Your task to perform on an android device: Open location settings Image 0: 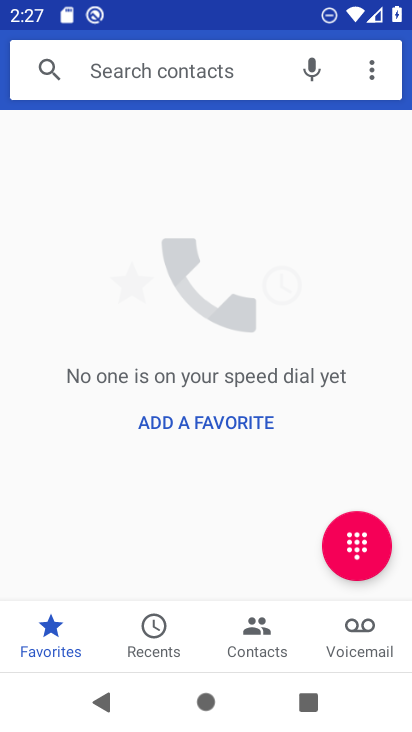
Step 0: drag from (218, 566) to (202, 160)
Your task to perform on an android device: Open location settings Image 1: 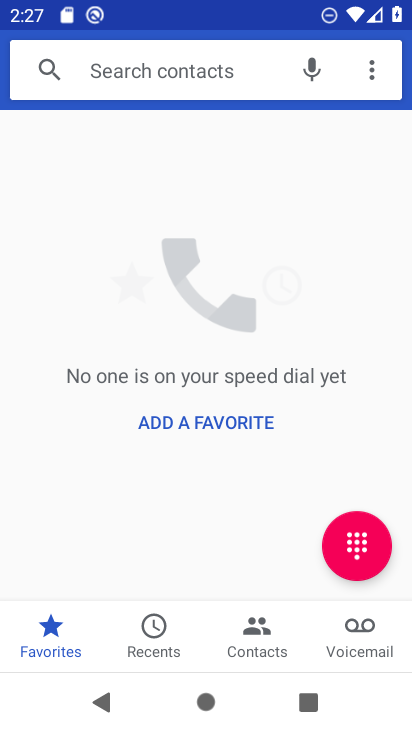
Step 1: press home button
Your task to perform on an android device: Open location settings Image 2: 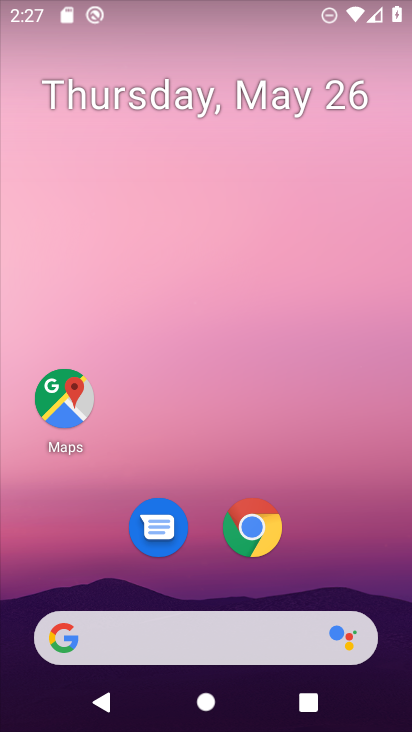
Step 2: drag from (194, 581) to (220, 133)
Your task to perform on an android device: Open location settings Image 3: 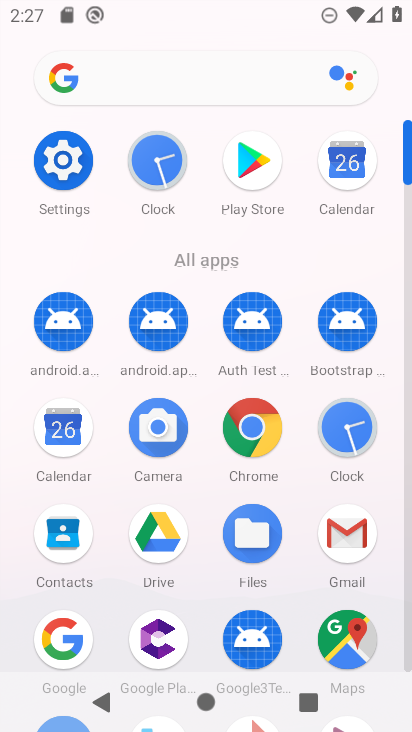
Step 3: click (61, 148)
Your task to perform on an android device: Open location settings Image 4: 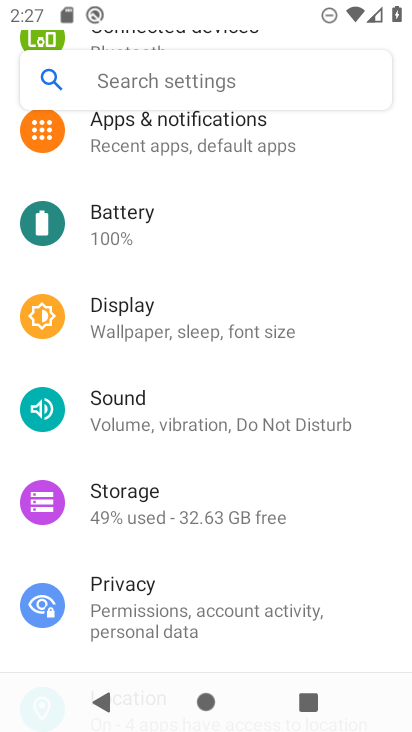
Step 4: drag from (214, 256) to (317, 171)
Your task to perform on an android device: Open location settings Image 5: 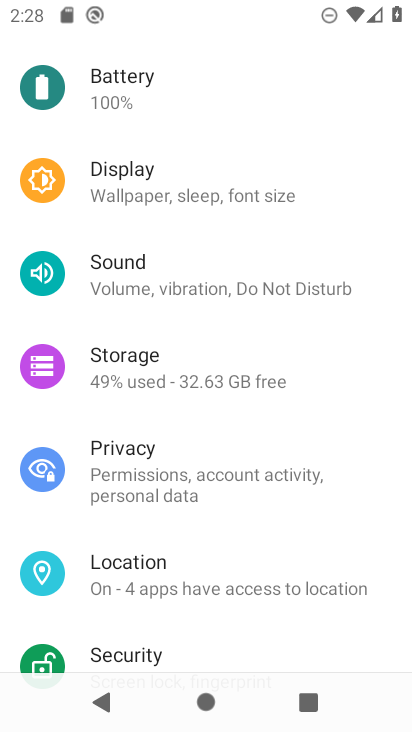
Step 5: click (130, 581)
Your task to perform on an android device: Open location settings Image 6: 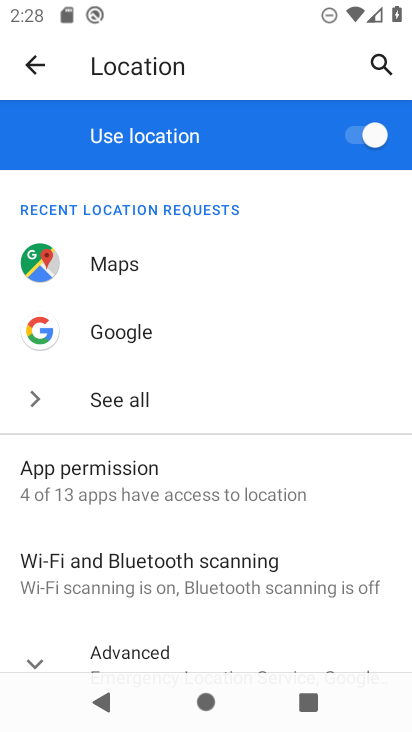
Step 6: drag from (171, 641) to (264, 281)
Your task to perform on an android device: Open location settings Image 7: 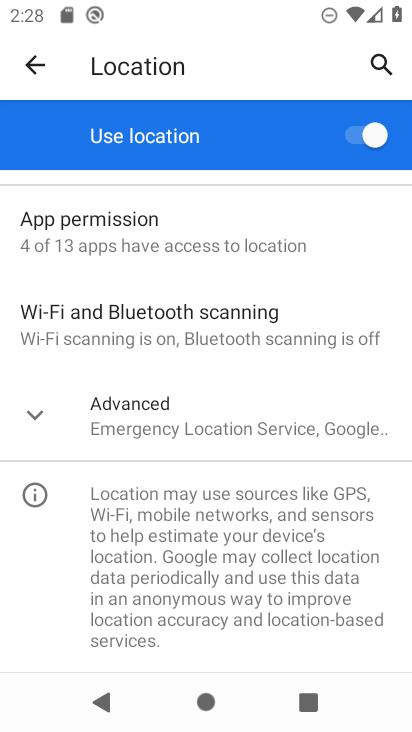
Step 7: click (227, 423)
Your task to perform on an android device: Open location settings Image 8: 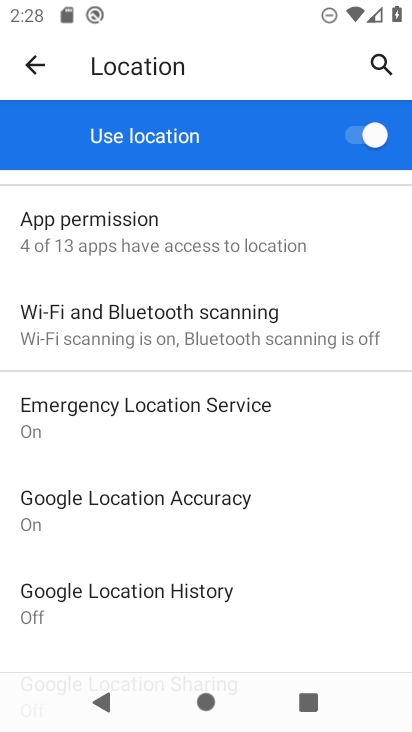
Step 8: task complete